Your task to perform on an android device: Go to Wikipedia Image 0: 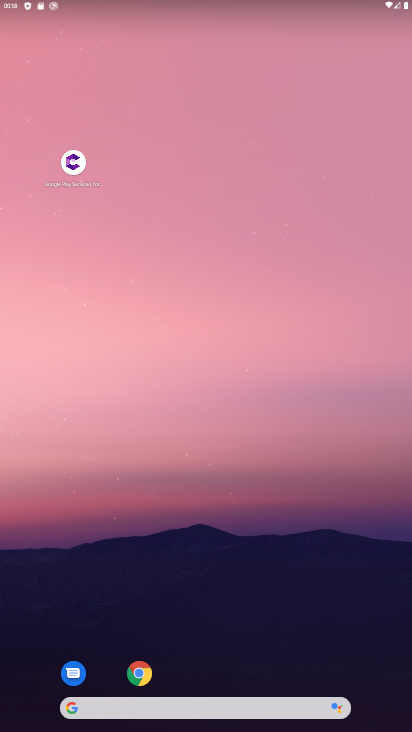
Step 0: click (136, 673)
Your task to perform on an android device: Go to Wikipedia Image 1: 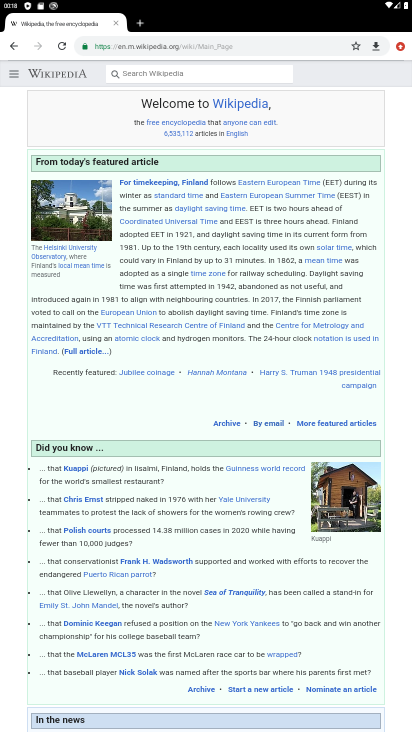
Step 1: task complete